Your task to perform on an android device: open app "Spotify" (install if not already installed) Image 0: 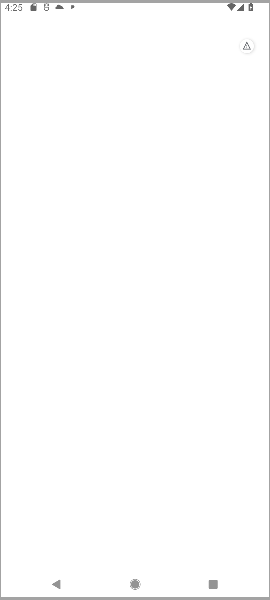
Step 0: press home button
Your task to perform on an android device: open app "Spotify" (install if not already installed) Image 1: 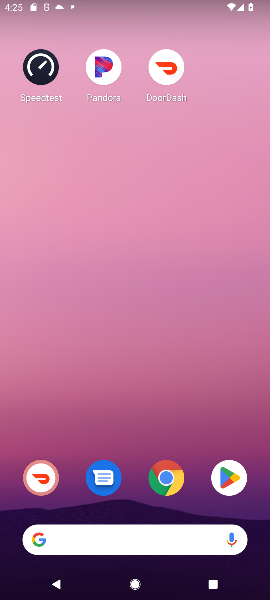
Step 1: click (227, 469)
Your task to perform on an android device: open app "Spotify" (install if not already installed) Image 2: 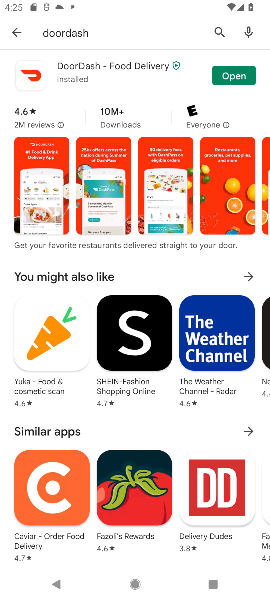
Step 2: click (211, 34)
Your task to perform on an android device: open app "Spotify" (install if not already installed) Image 3: 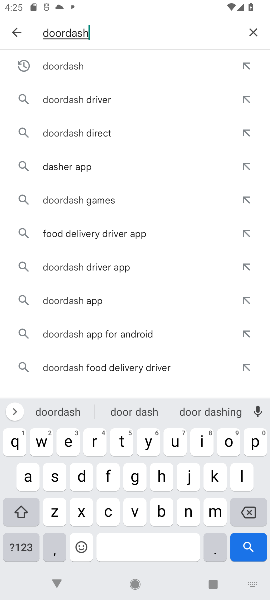
Step 3: click (258, 31)
Your task to perform on an android device: open app "Spotify" (install if not already installed) Image 4: 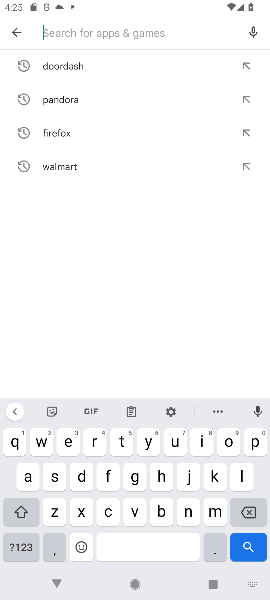
Step 4: click (46, 490)
Your task to perform on an android device: open app "Spotify" (install if not already installed) Image 5: 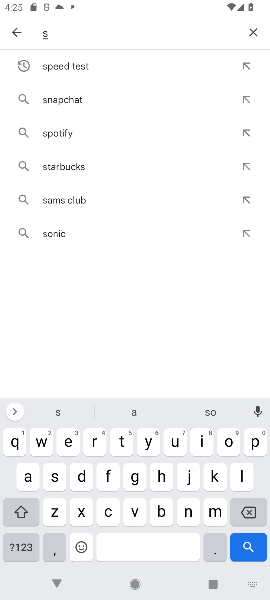
Step 5: click (256, 448)
Your task to perform on an android device: open app "Spotify" (install if not already installed) Image 6: 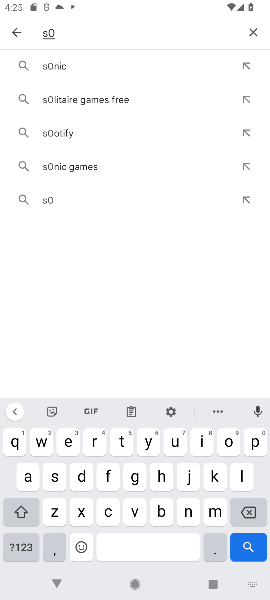
Step 6: click (246, 514)
Your task to perform on an android device: open app "Spotify" (install if not already installed) Image 7: 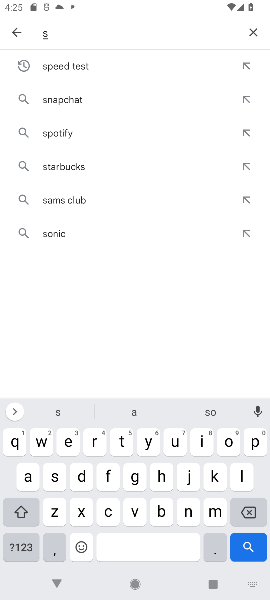
Step 7: click (257, 448)
Your task to perform on an android device: open app "Spotify" (install if not already installed) Image 8: 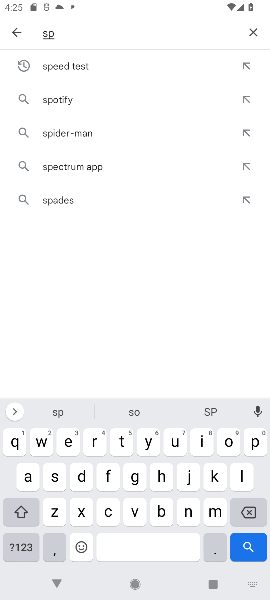
Step 8: click (81, 96)
Your task to perform on an android device: open app "Spotify" (install if not already installed) Image 9: 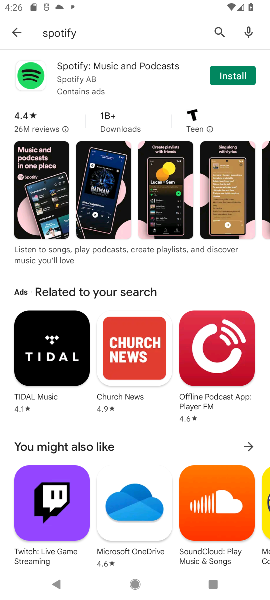
Step 9: click (219, 77)
Your task to perform on an android device: open app "Spotify" (install if not already installed) Image 10: 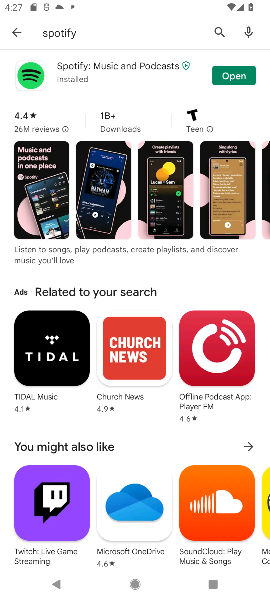
Step 10: click (227, 82)
Your task to perform on an android device: open app "Spotify" (install if not already installed) Image 11: 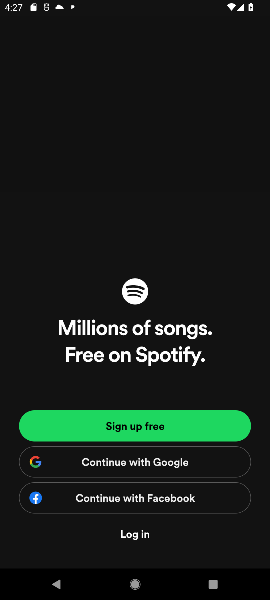
Step 11: task complete